Your task to perform on an android device: Search for sushi restaurants on Maps Image 0: 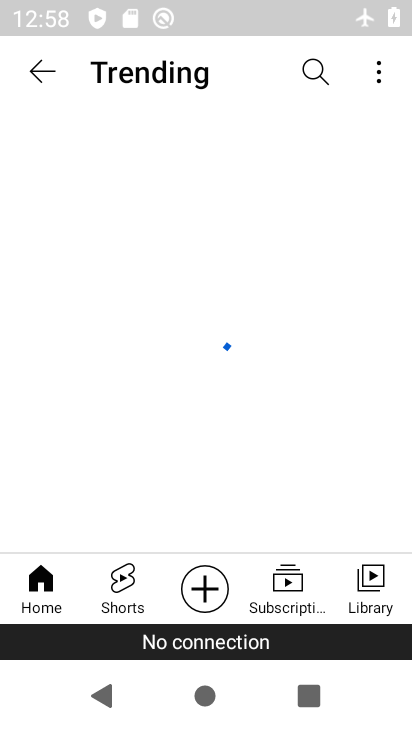
Step 0: press home button
Your task to perform on an android device: Search for sushi restaurants on Maps Image 1: 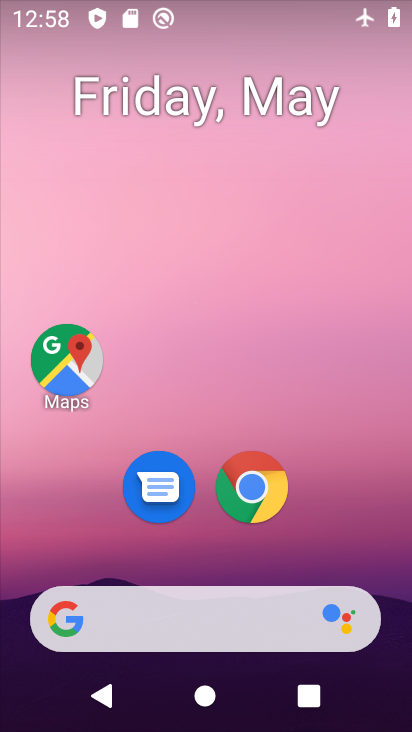
Step 1: click (82, 359)
Your task to perform on an android device: Search for sushi restaurants on Maps Image 2: 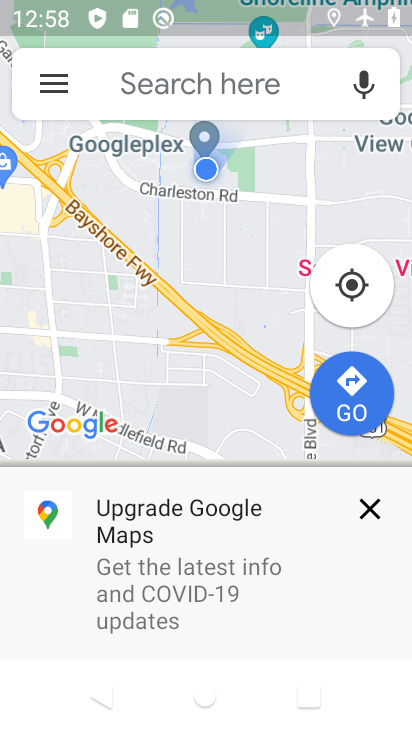
Step 2: click (220, 76)
Your task to perform on an android device: Search for sushi restaurants on Maps Image 3: 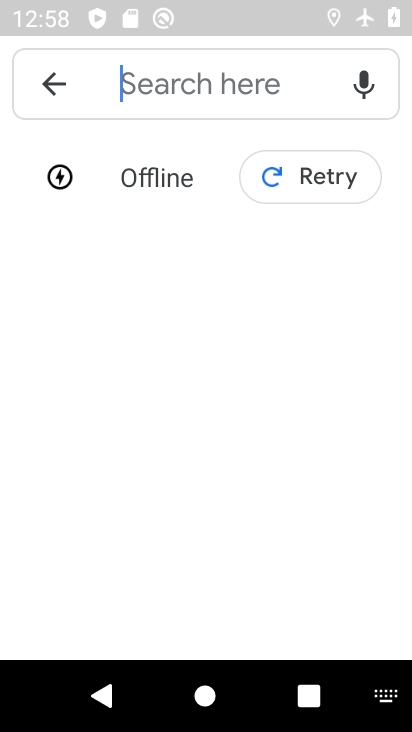
Step 3: type "sushi restaurant"
Your task to perform on an android device: Search for sushi restaurants on Maps Image 4: 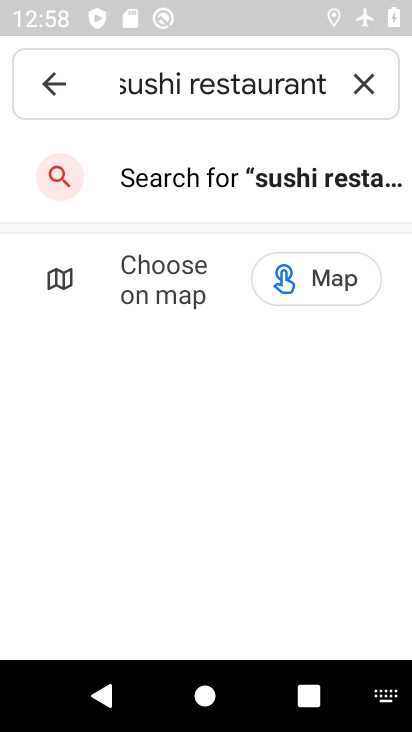
Step 4: click (48, 170)
Your task to perform on an android device: Search for sushi restaurants on Maps Image 5: 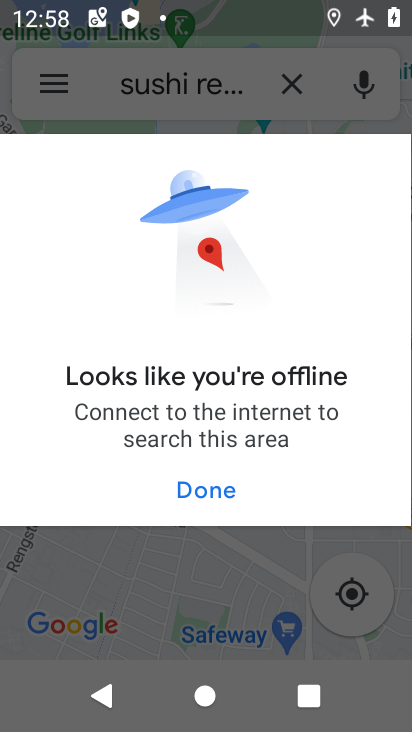
Step 5: click (234, 488)
Your task to perform on an android device: Search for sushi restaurants on Maps Image 6: 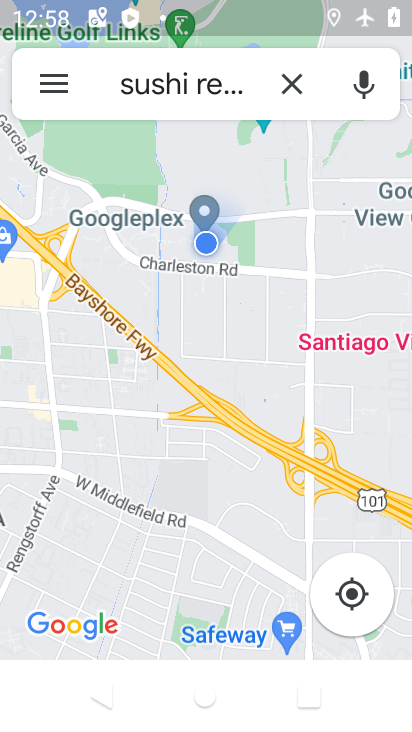
Step 6: drag from (243, 12) to (326, 639)
Your task to perform on an android device: Search for sushi restaurants on Maps Image 7: 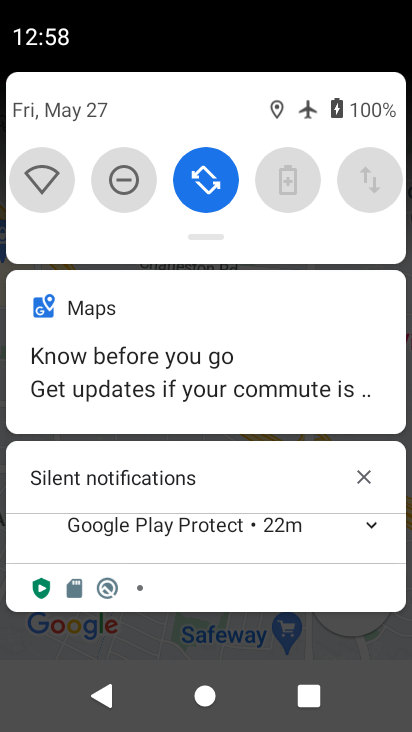
Step 7: drag from (221, 122) to (322, 644)
Your task to perform on an android device: Search for sushi restaurants on Maps Image 8: 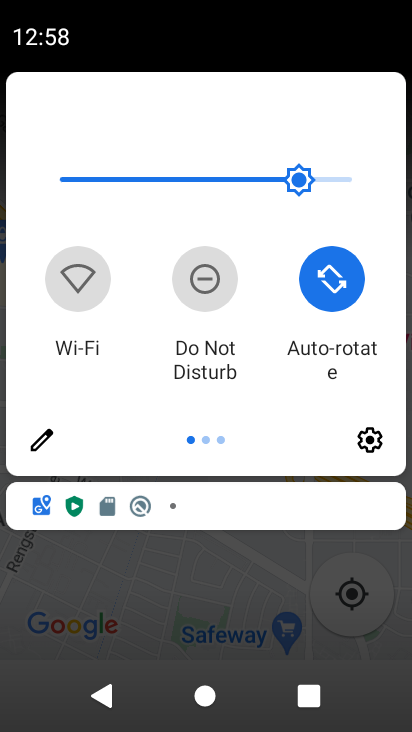
Step 8: drag from (357, 402) to (15, 393)
Your task to perform on an android device: Search for sushi restaurants on Maps Image 9: 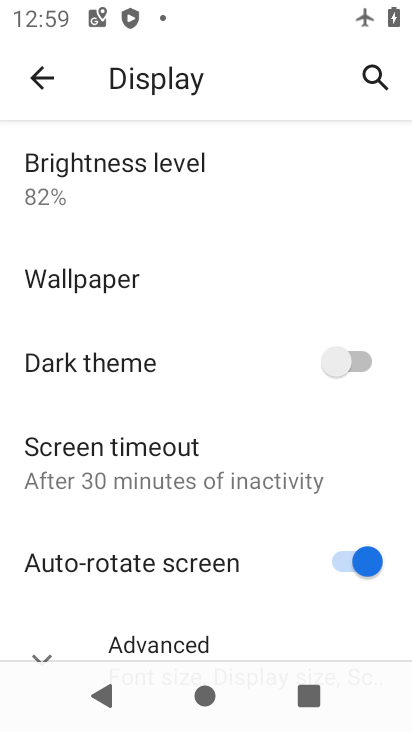
Step 9: click (15, 393)
Your task to perform on an android device: Search for sushi restaurants on Maps Image 10: 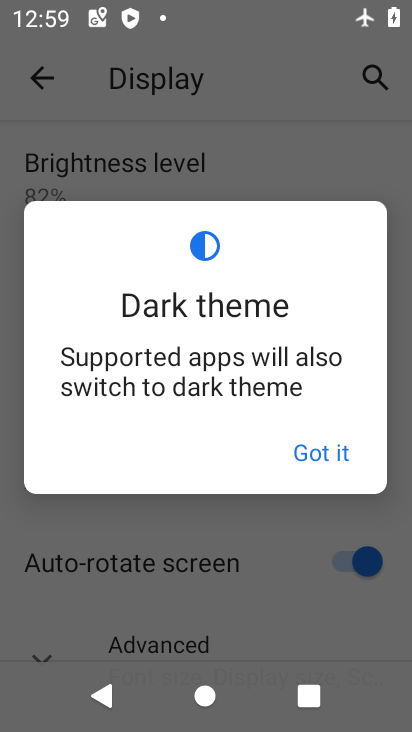
Step 10: drag from (256, 16) to (240, 424)
Your task to perform on an android device: Search for sushi restaurants on Maps Image 11: 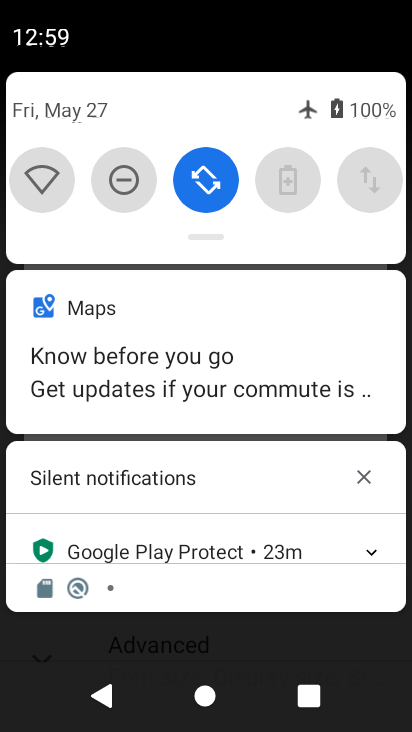
Step 11: drag from (237, 131) to (284, 699)
Your task to perform on an android device: Search for sushi restaurants on Maps Image 12: 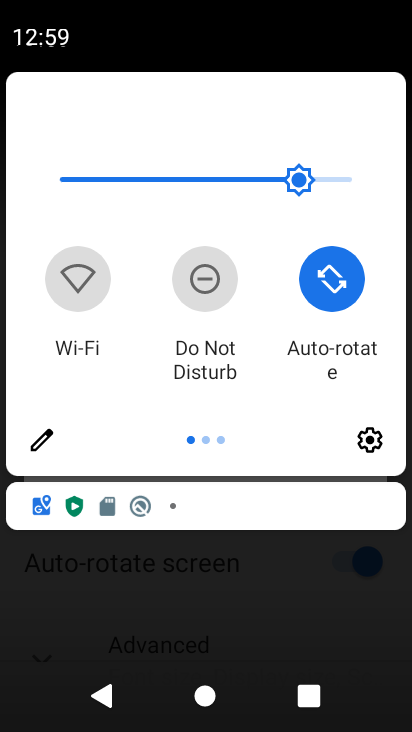
Step 12: drag from (188, 195) to (171, 549)
Your task to perform on an android device: Search for sushi restaurants on Maps Image 13: 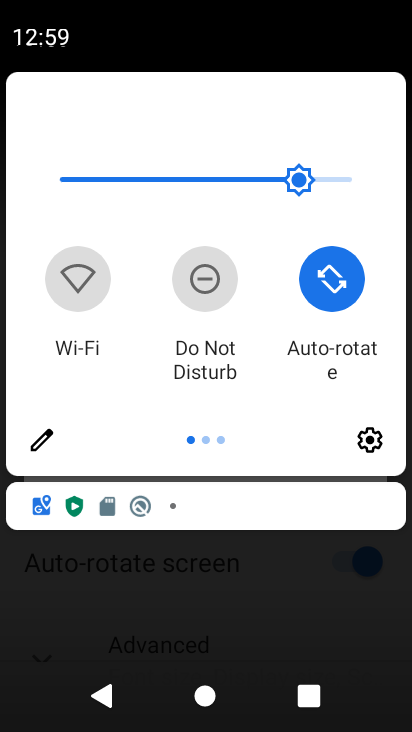
Step 13: drag from (254, 215) to (235, 602)
Your task to perform on an android device: Search for sushi restaurants on Maps Image 14: 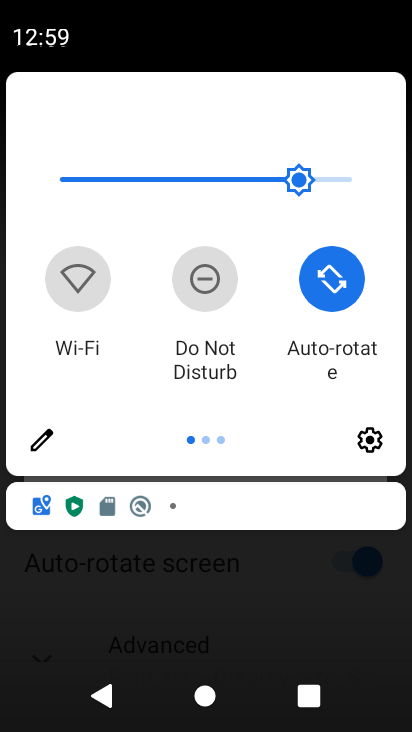
Step 14: drag from (366, 411) to (122, 403)
Your task to perform on an android device: Search for sushi restaurants on Maps Image 15: 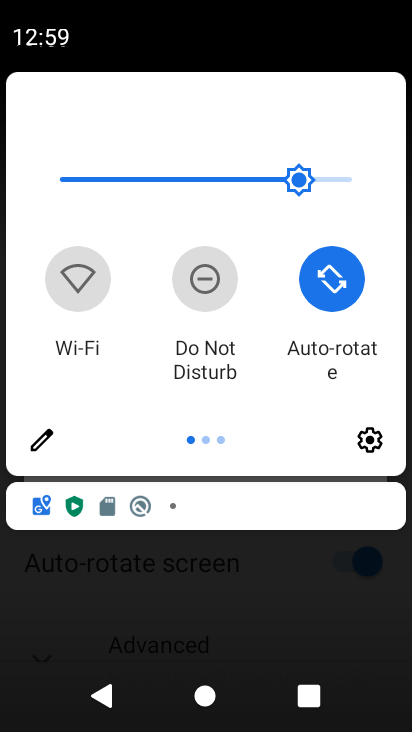
Step 15: drag from (363, 373) to (94, 351)
Your task to perform on an android device: Search for sushi restaurants on Maps Image 16: 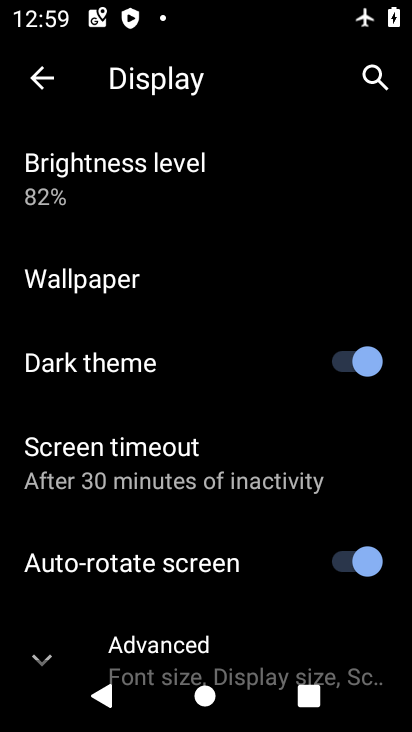
Step 16: click (60, 101)
Your task to perform on an android device: Search for sushi restaurants on Maps Image 17: 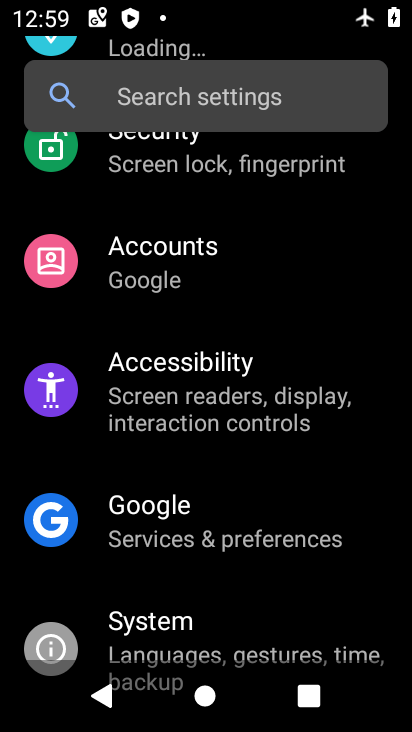
Step 17: drag from (135, 503) to (123, 553)
Your task to perform on an android device: Search for sushi restaurants on Maps Image 18: 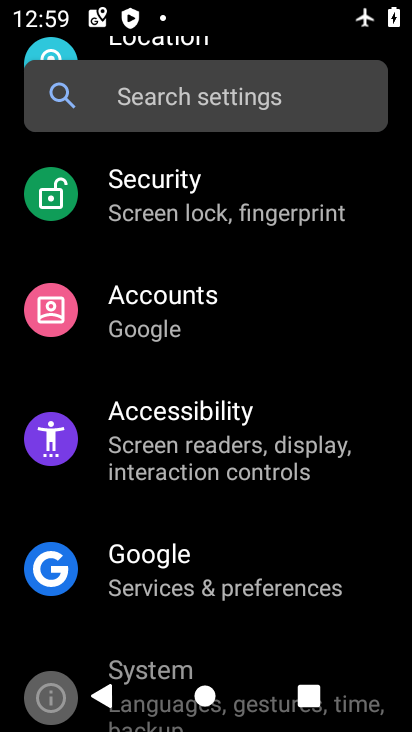
Step 18: drag from (257, 178) to (233, 657)
Your task to perform on an android device: Search for sushi restaurants on Maps Image 19: 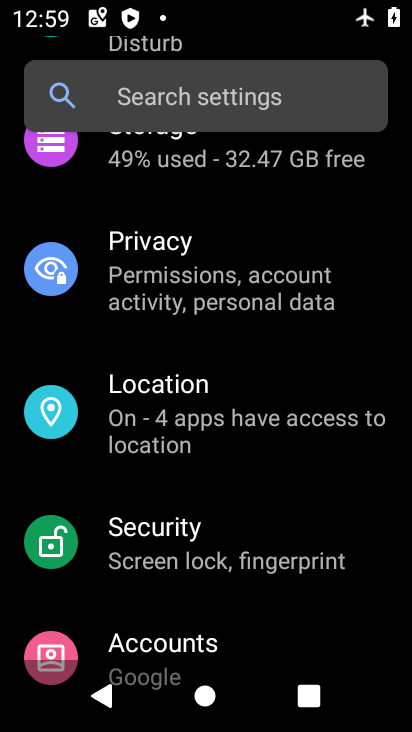
Step 19: drag from (160, 525) to (134, 645)
Your task to perform on an android device: Search for sushi restaurants on Maps Image 20: 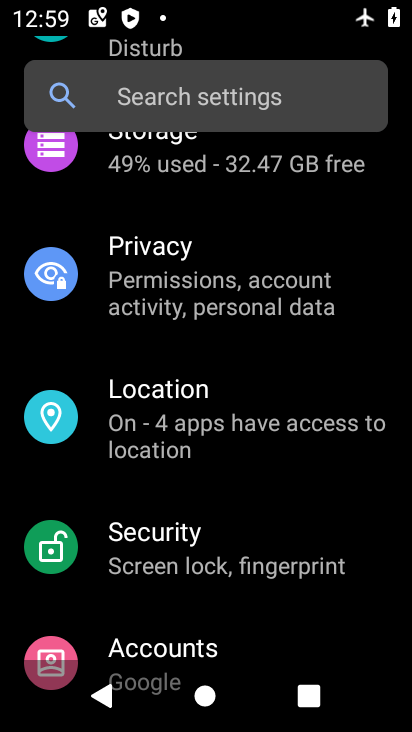
Step 20: drag from (280, 217) to (264, 614)
Your task to perform on an android device: Search for sushi restaurants on Maps Image 21: 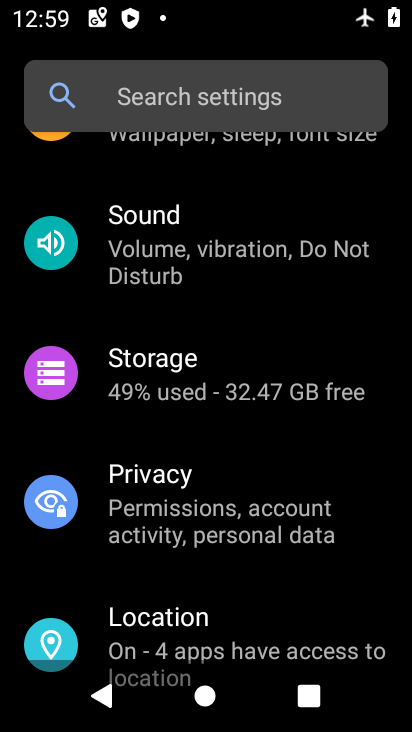
Step 21: click (233, 144)
Your task to perform on an android device: Search for sushi restaurants on Maps Image 22: 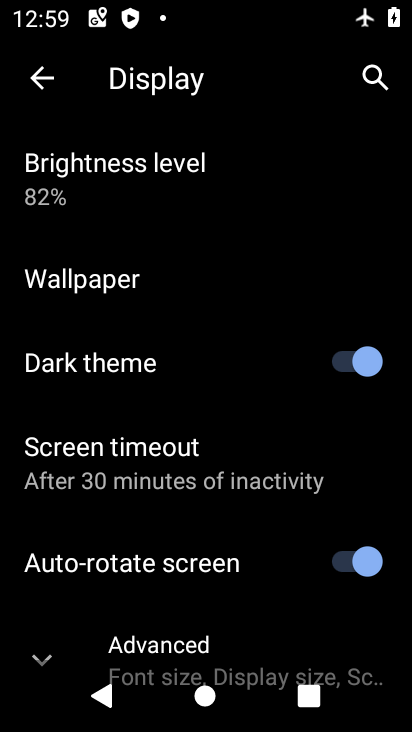
Step 22: drag from (249, 13) to (191, 627)
Your task to perform on an android device: Search for sushi restaurants on Maps Image 23: 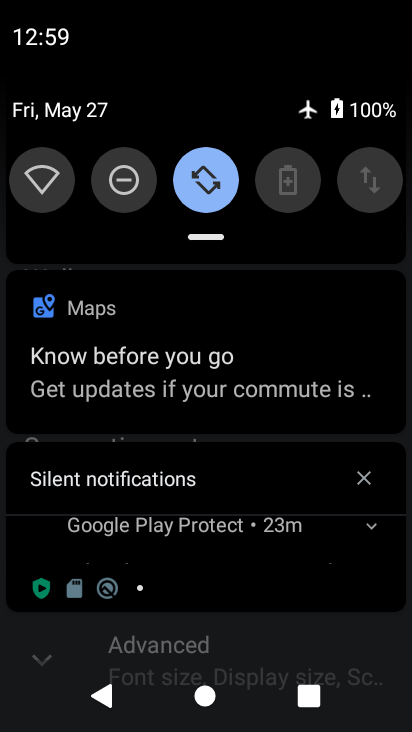
Step 23: drag from (231, 142) to (245, 658)
Your task to perform on an android device: Search for sushi restaurants on Maps Image 24: 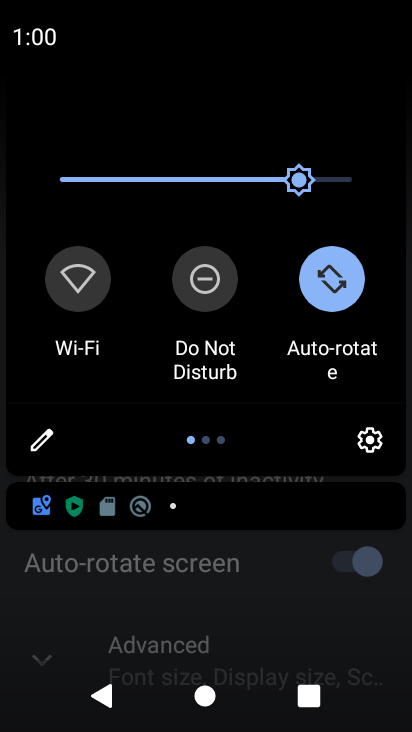
Step 24: drag from (374, 386) to (8, 401)
Your task to perform on an android device: Search for sushi restaurants on Maps Image 25: 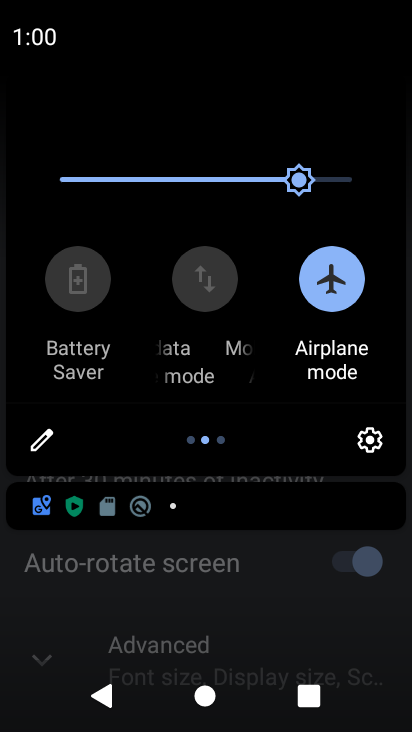
Step 25: click (344, 285)
Your task to perform on an android device: Search for sushi restaurants on Maps Image 26: 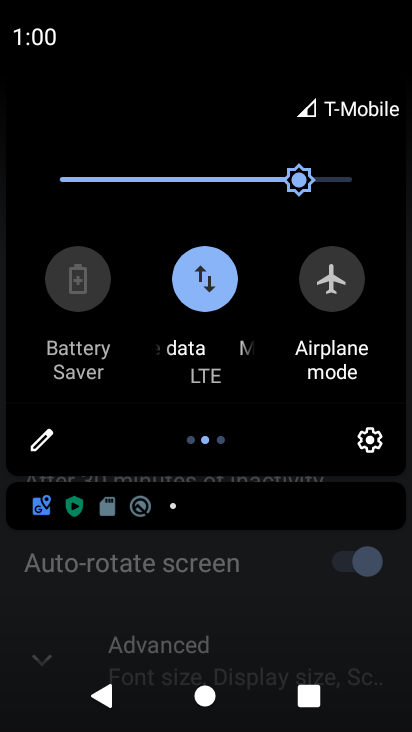
Step 26: task complete